Your task to perform on an android device: see tabs open on other devices in the chrome app Image 0: 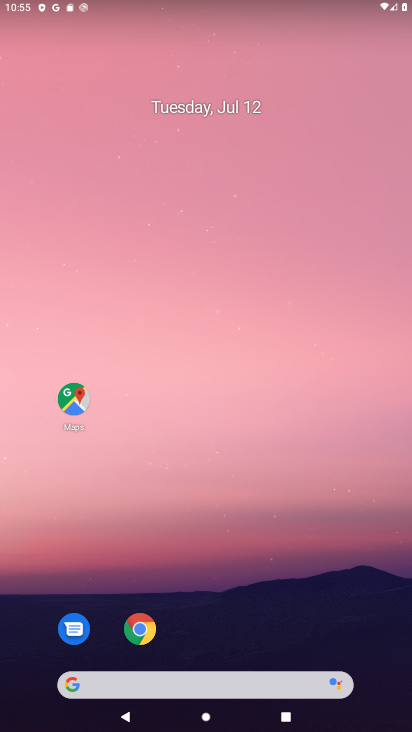
Step 0: drag from (235, 525) to (235, 315)
Your task to perform on an android device: see tabs open on other devices in the chrome app Image 1: 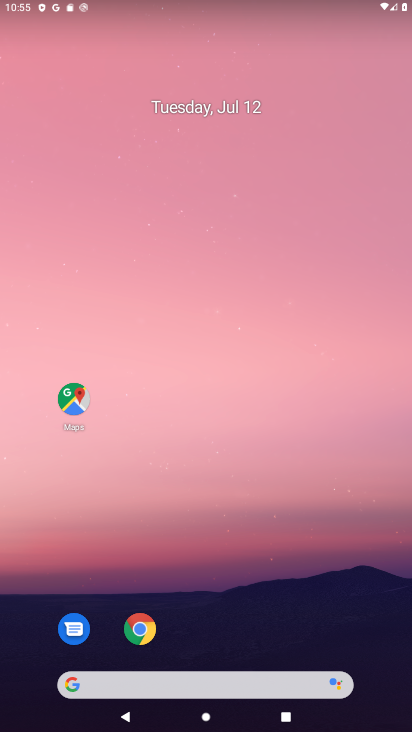
Step 1: drag from (231, 604) to (230, 271)
Your task to perform on an android device: see tabs open on other devices in the chrome app Image 2: 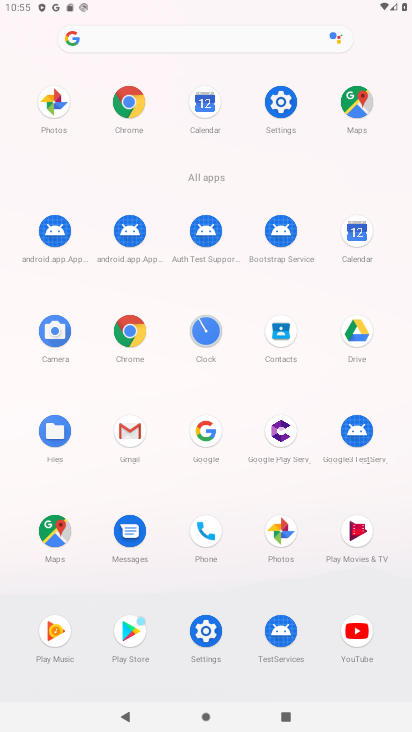
Step 2: click (122, 96)
Your task to perform on an android device: see tabs open on other devices in the chrome app Image 3: 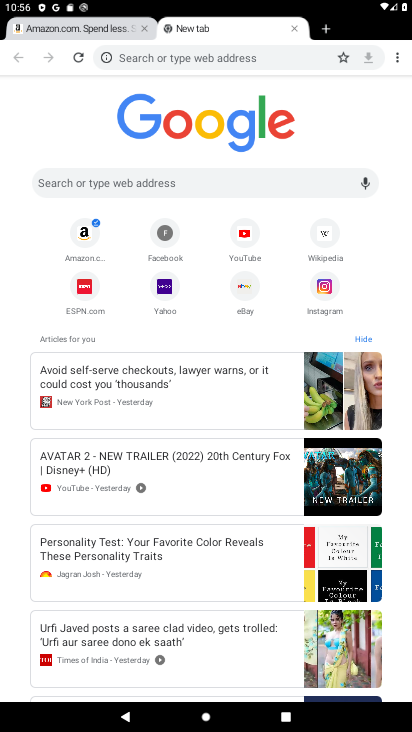
Step 3: click (403, 53)
Your task to perform on an android device: see tabs open on other devices in the chrome app Image 4: 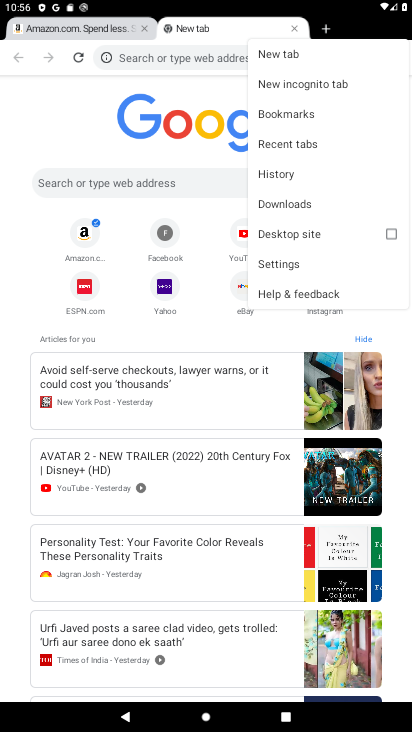
Step 4: click (288, 162)
Your task to perform on an android device: see tabs open on other devices in the chrome app Image 5: 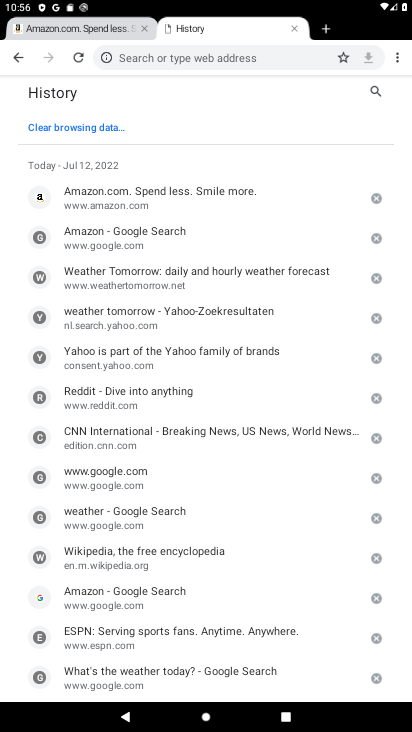
Step 5: task complete